Your task to perform on an android device: Search for vegetarian restaurants on Maps Image 0: 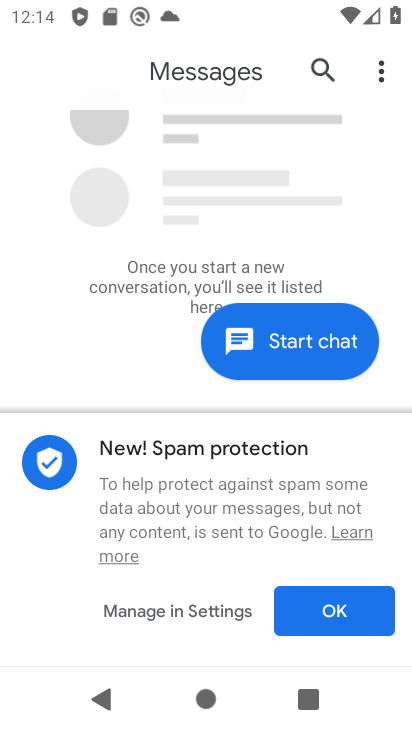
Step 0: press home button
Your task to perform on an android device: Search for vegetarian restaurants on Maps Image 1: 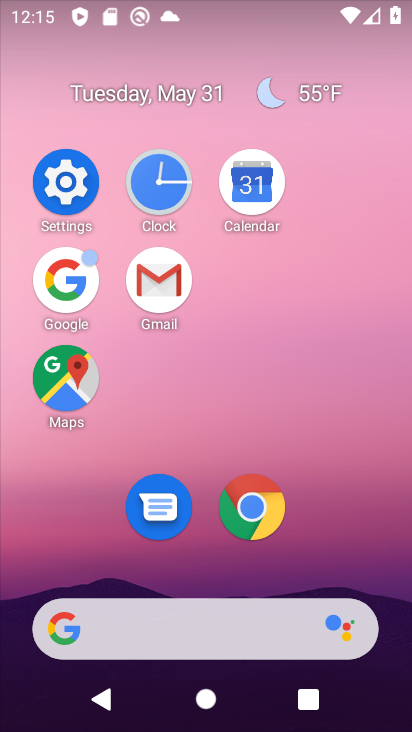
Step 1: click (79, 386)
Your task to perform on an android device: Search for vegetarian restaurants on Maps Image 2: 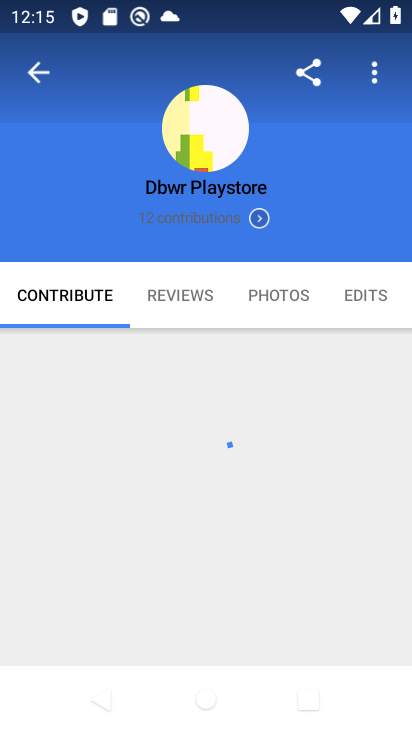
Step 2: click (49, 89)
Your task to perform on an android device: Search for vegetarian restaurants on Maps Image 3: 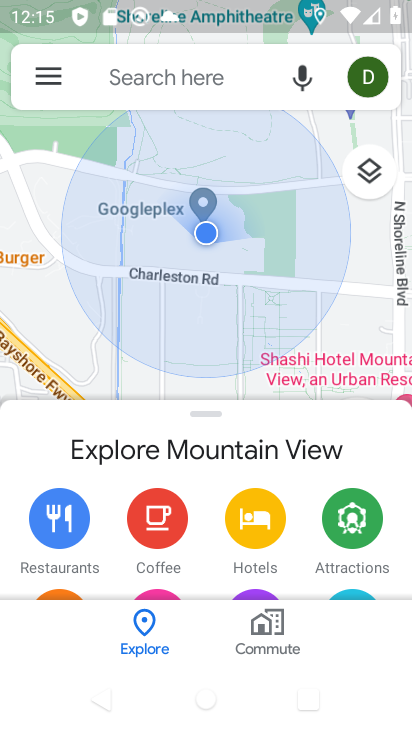
Step 3: click (144, 81)
Your task to perform on an android device: Search for vegetarian restaurants on Maps Image 4: 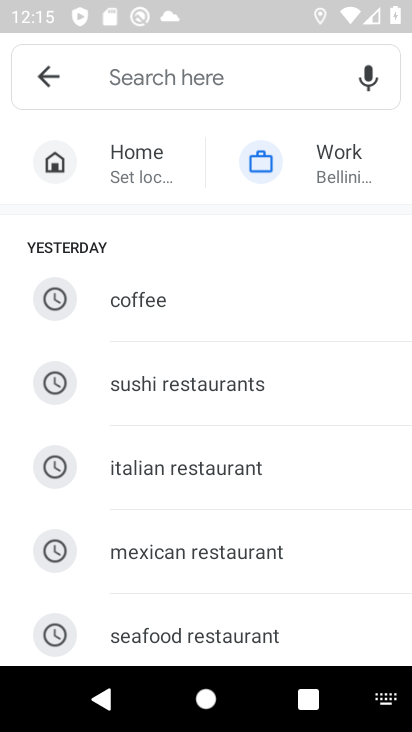
Step 4: drag from (265, 588) to (253, 228)
Your task to perform on an android device: Search for vegetarian restaurants on Maps Image 5: 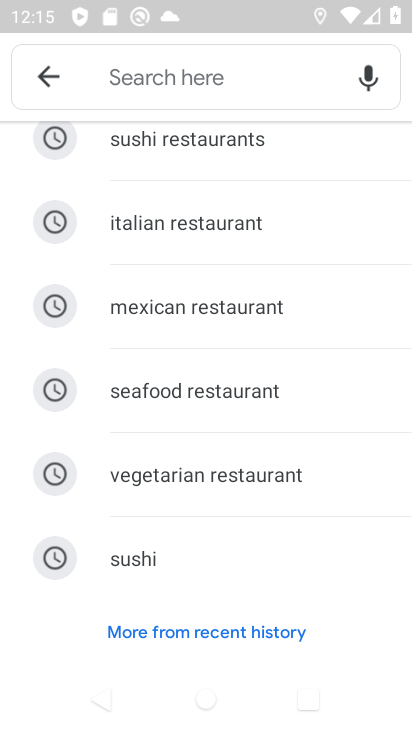
Step 5: click (246, 616)
Your task to perform on an android device: Search for vegetarian restaurants on Maps Image 6: 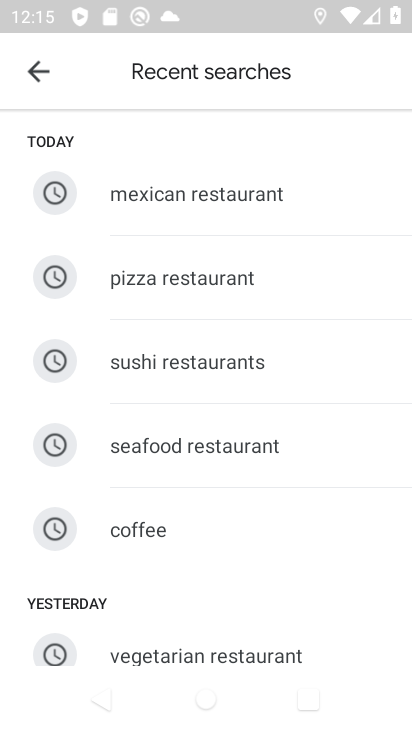
Step 6: click (326, 647)
Your task to perform on an android device: Search for vegetarian restaurants on Maps Image 7: 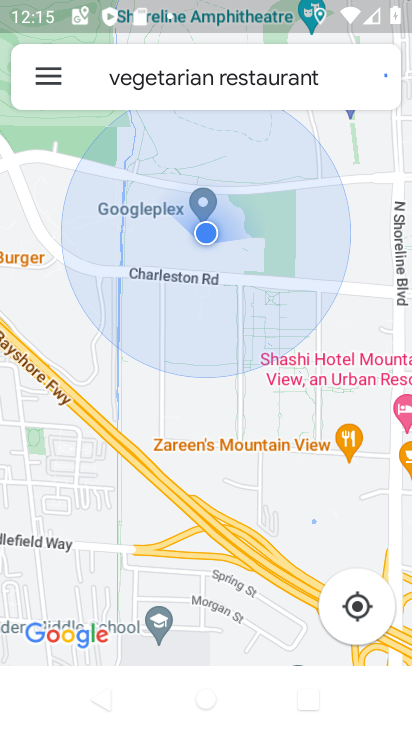
Step 7: task complete